Your task to perform on an android device: refresh tabs in the chrome app Image 0: 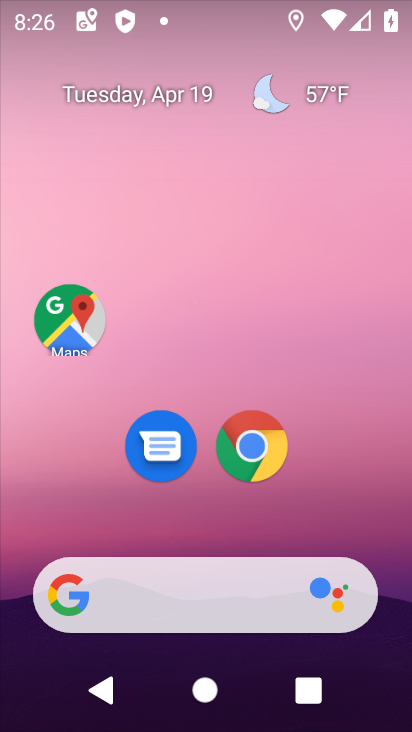
Step 0: click (245, 435)
Your task to perform on an android device: refresh tabs in the chrome app Image 1: 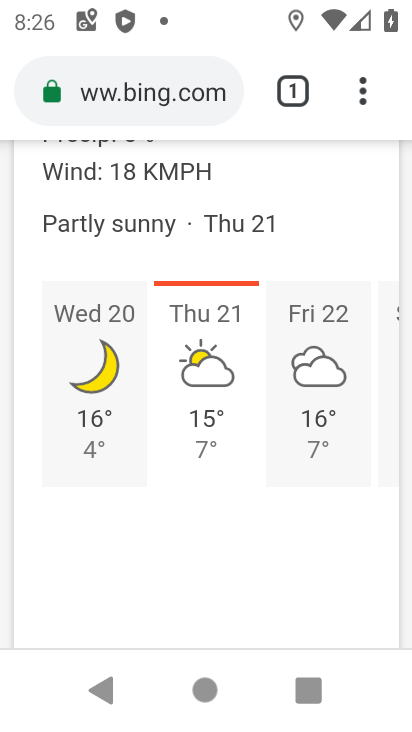
Step 1: click (366, 84)
Your task to perform on an android device: refresh tabs in the chrome app Image 2: 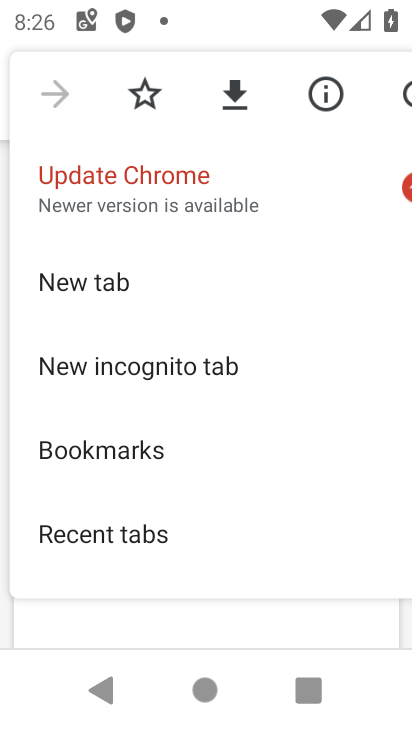
Step 2: click (409, 93)
Your task to perform on an android device: refresh tabs in the chrome app Image 3: 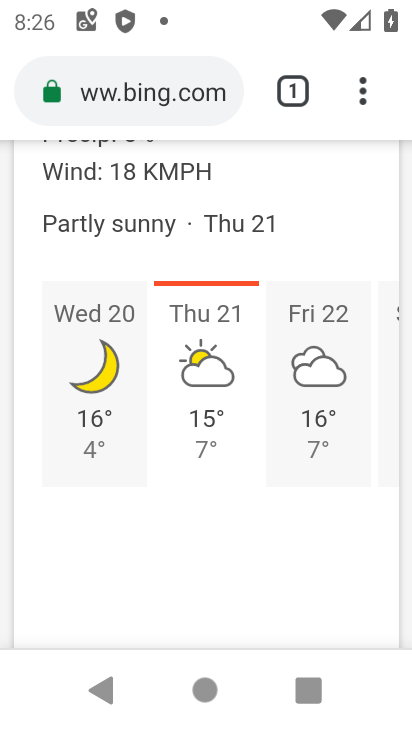
Step 3: task complete